Your task to perform on an android device: Is it going to rain tomorrow? Image 0: 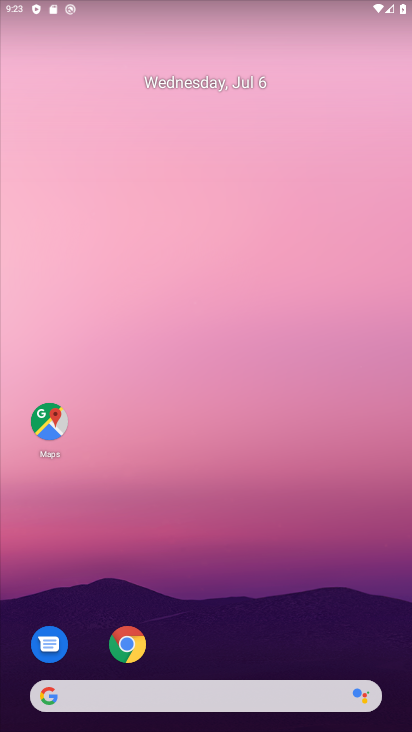
Step 0: drag from (331, 711) to (208, 198)
Your task to perform on an android device: Is it going to rain tomorrow? Image 1: 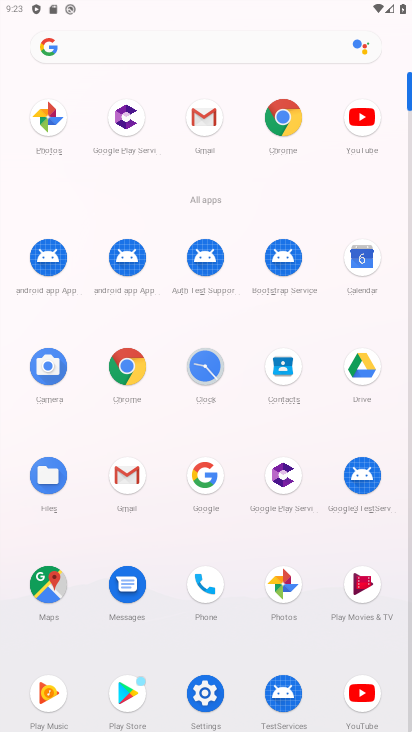
Step 1: press back button
Your task to perform on an android device: Is it going to rain tomorrow? Image 2: 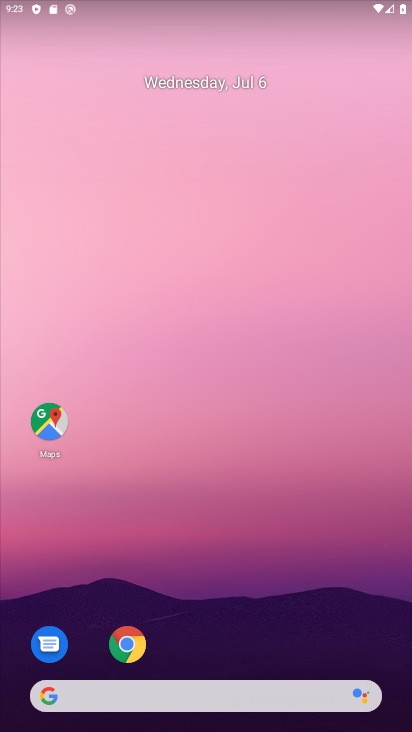
Step 2: drag from (5, 209) to (404, 648)
Your task to perform on an android device: Is it going to rain tomorrow? Image 3: 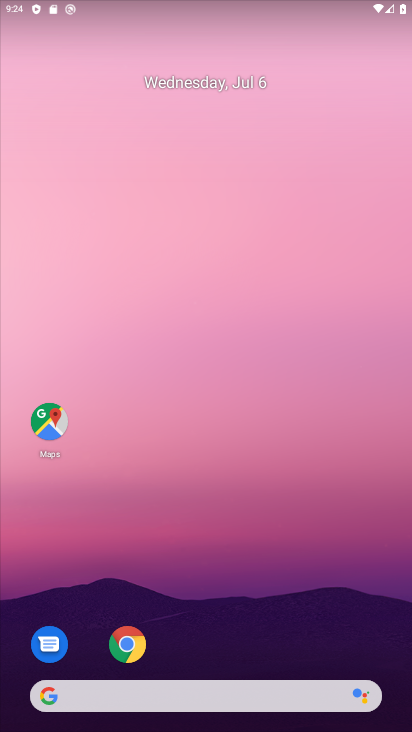
Step 3: drag from (239, 710) to (213, 154)
Your task to perform on an android device: Is it going to rain tomorrow? Image 4: 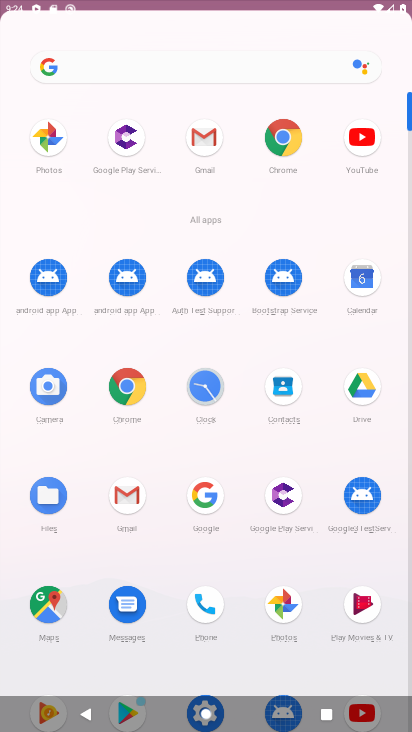
Step 4: drag from (211, 605) to (158, 165)
Your task to perform on an android device: Is it going to rain tomorrow? Image 5: 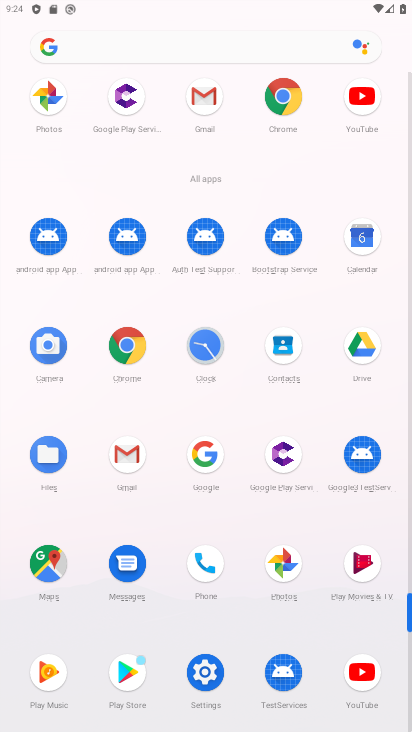
Step 5: click (201, 453)
Your task to perform on an android device: Is it going to rain tomorrow? Image 6: 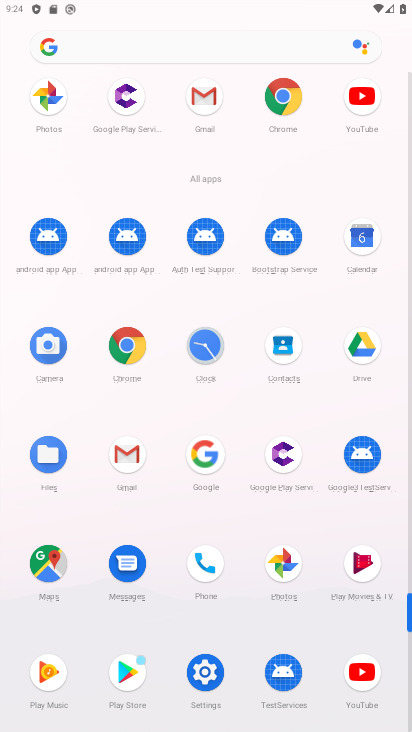
Step 6: click (201, 453)
Your task to perform on an android device: Is it going to rain tomorrow? Image 7: 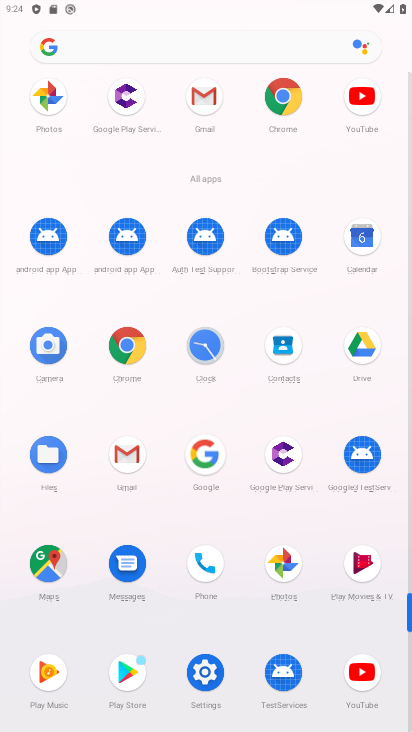
Step 7: click (202, 453)
Your task to perform on an android device: Is it going to rain tomorrow? Image 8: 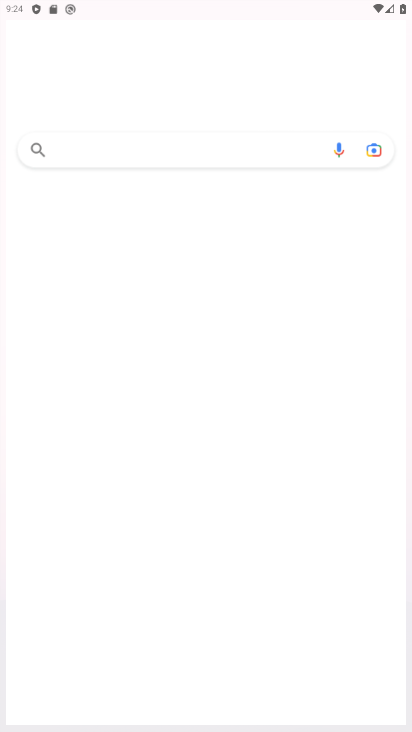
Step 8: click (203, 452)
Your task to perform on an android device: Is it going to rain tomorrow? Image 9: 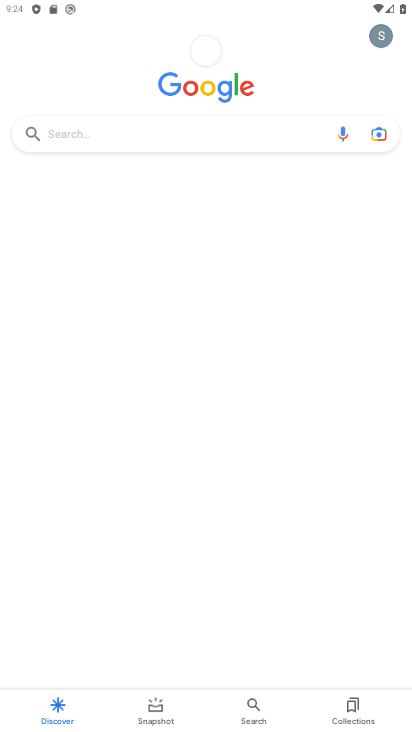
Step 9: click (71, 130)
Your task to perform on an android device: Is it going to rain tomorrow? Image 10: 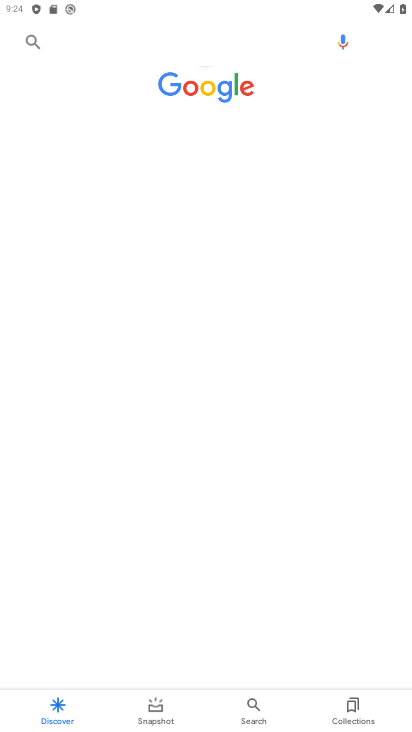
Step 10: click (81, 144)
Your task to perform on an android device: Is it going to rain tomorrow? Image 11: 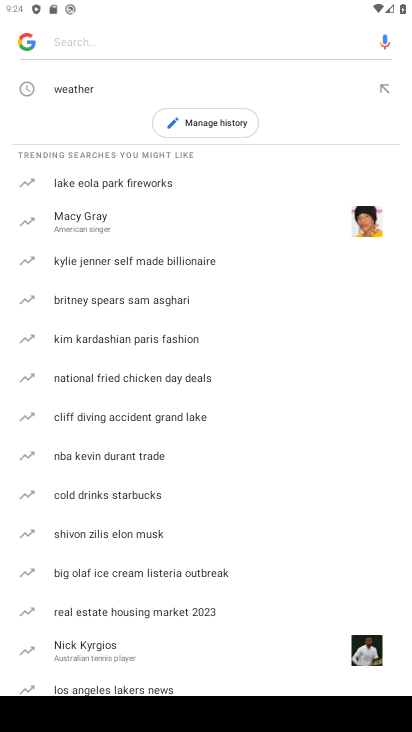
Step 11: type "Is it going to rain tomorrow?"
Your task to perform on an android device: Is it going to rain tomorrow? Image 12: 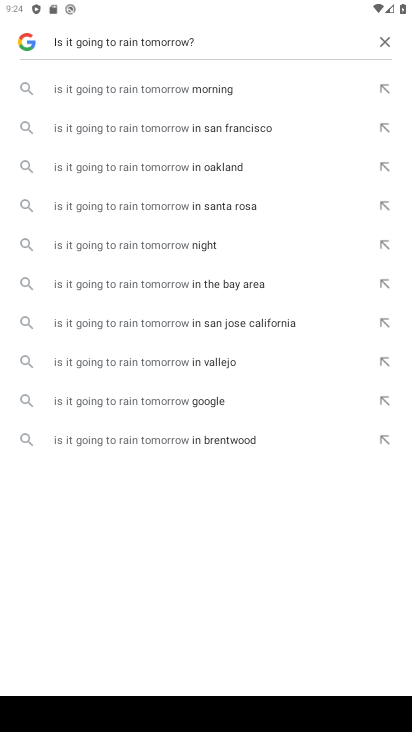
Step 12: click (378, 90)
Your task to perform on an android device: Is it going to rain tomorrow? Image 13: 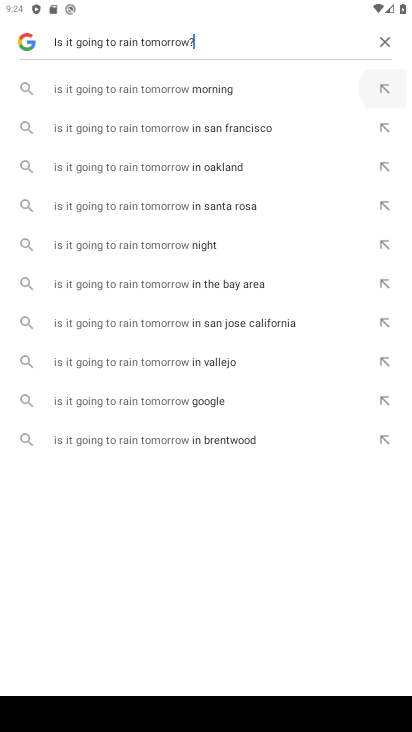
Step 13: click (378, 90)
Your task to perform on an android device: Is it going to rain tomorrow? Image 14: 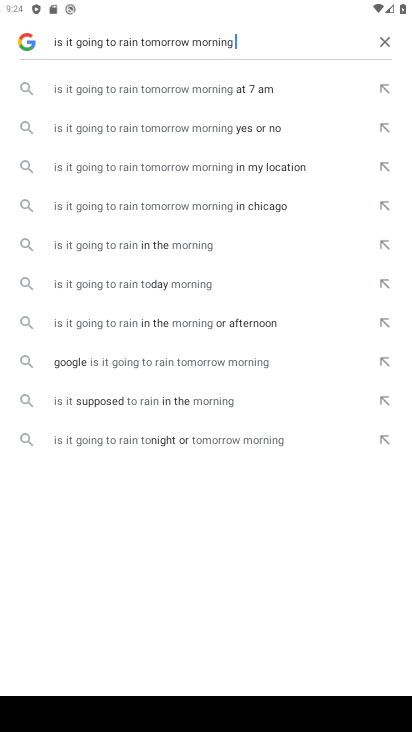
Step 14: click (378, 90)
Your task to perform on an android device: Is it going to rain tomorrow? Image 15: 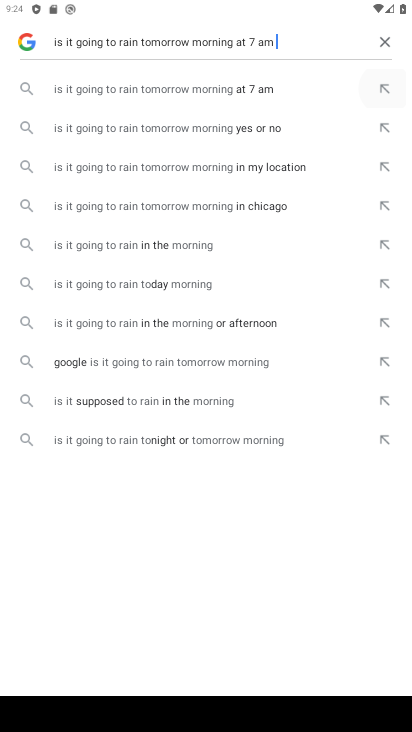
Step 15: click (378, 90)
Your task to perform on an android device: Is it going to rain tomorrow? Image 16: 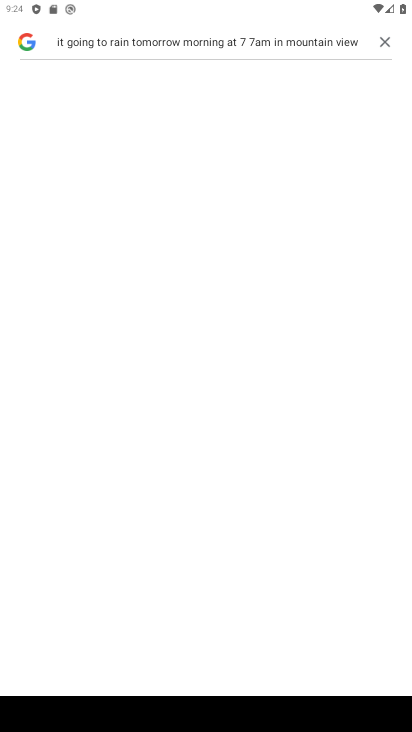
Step 16: click (387, 42)
Your task to perform on an android device: Is it going to rain tomorrow? Image 17: 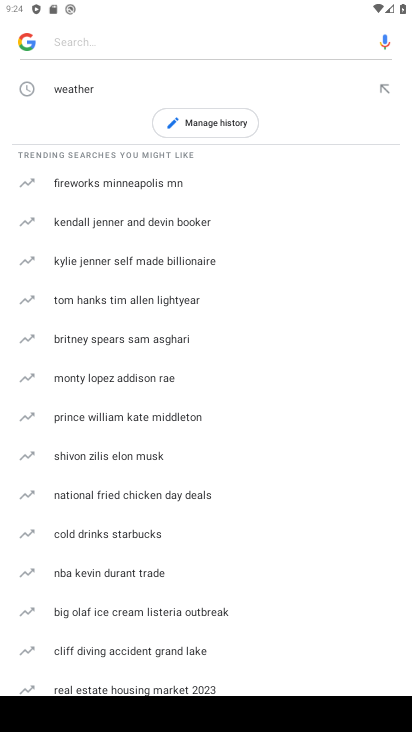
Step 17: click (388, 44)
Your task to perform on an android device: Is it going to rain tomorrow? Image 18: 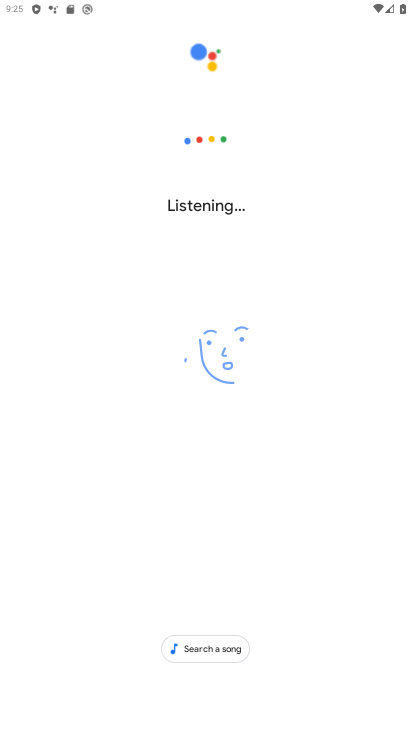
Step 18: press back button
Your task to perform on an android device: Is it going to rain tomorrow? Image 19: 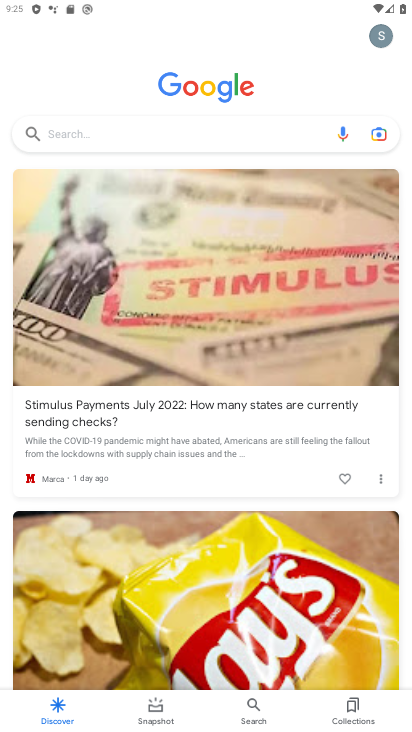
Step 19: click (104, 136)
Your task to perform on an android device: Is it going to rain tomorrow? Image 20: 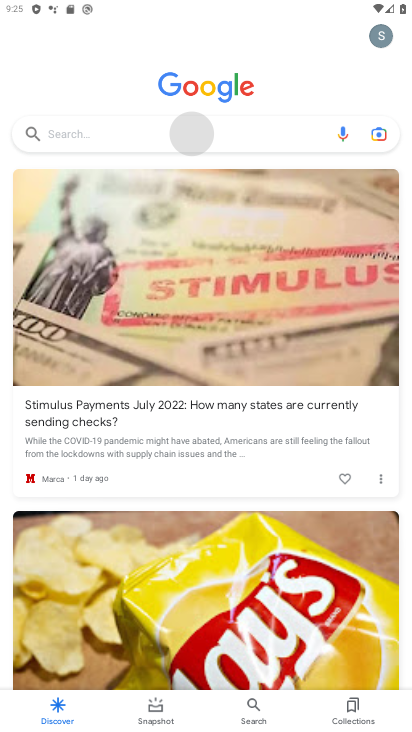
Step 20: click (103, 137)
Your task to perform on an android device: Is it going to rain tomorrow? Image 21: 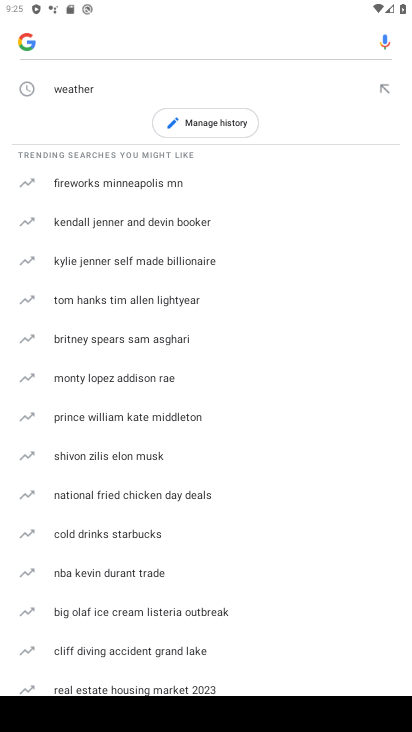
Step 21: click (80, 99)
Your task to perform on an android device: Is it going to rain tomorrow? Image 22: 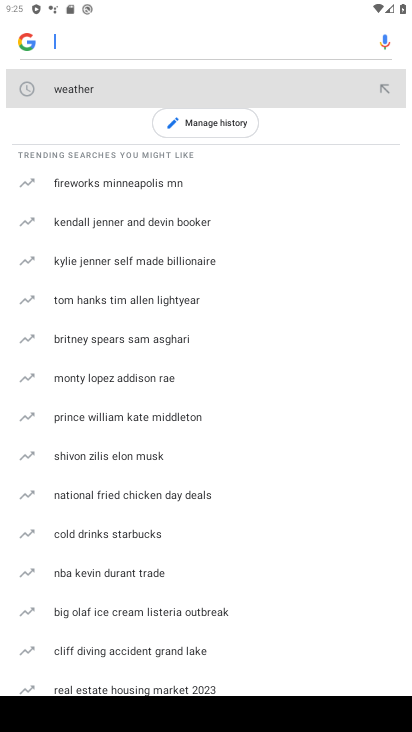
Step 22: click (80, 99)
Your task to perform on an android device: Is it going to rain tomorrow? Image 23: 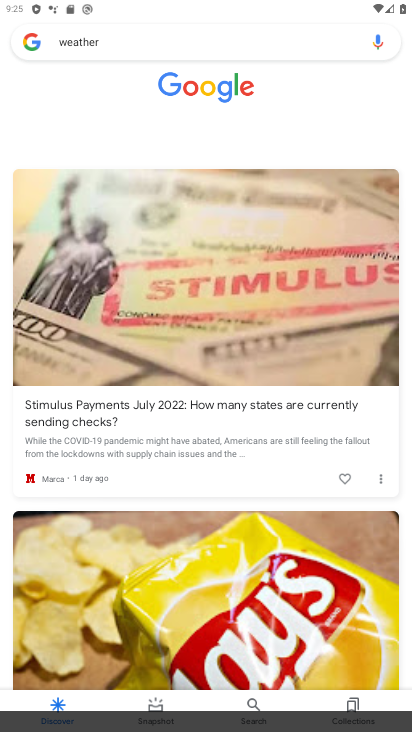
Step 23: click (80, 99)
Your task to perform on an android device: Is it going to rain tomorrow? Image 24: 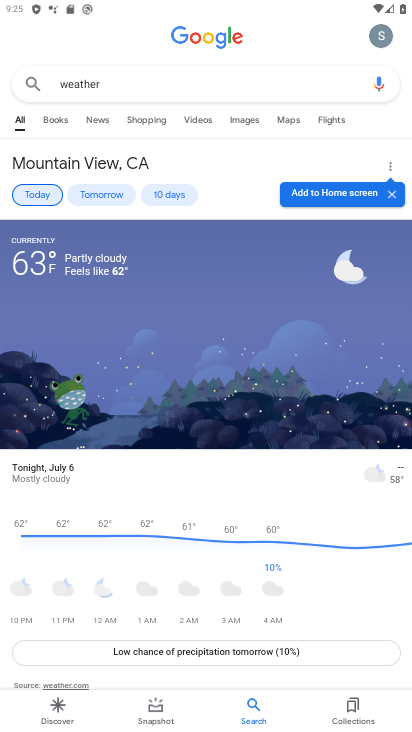
Step 24: task complete